Your task to perform on an android device: Clear all items from cart on walmart. Image 0: 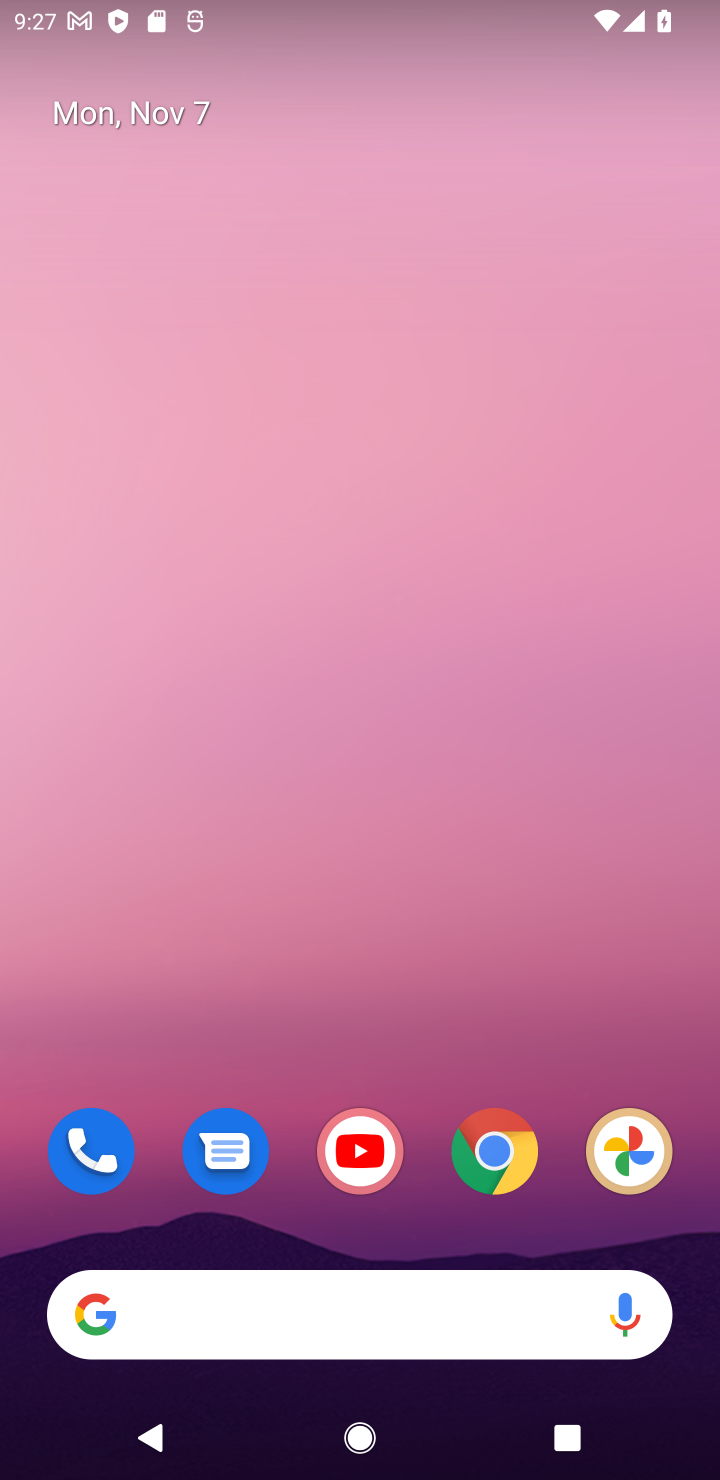
Step 0: click (502, 1152)
Your task to perform on an android device: Clear all items from cart on walmart. Image 1: 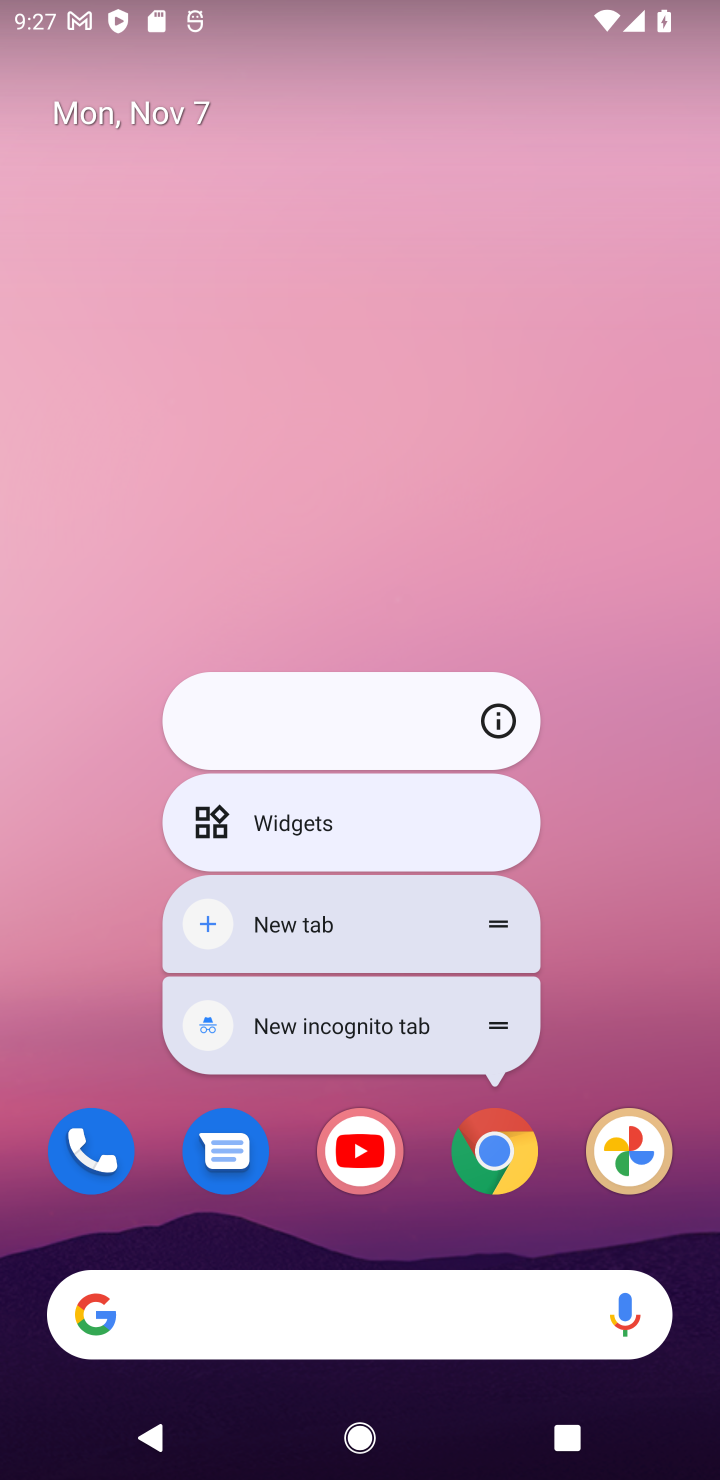
Step 1: click (502, 1154)
Your task to perform on an android device: Clear all items from cart on walmart. Image 2: 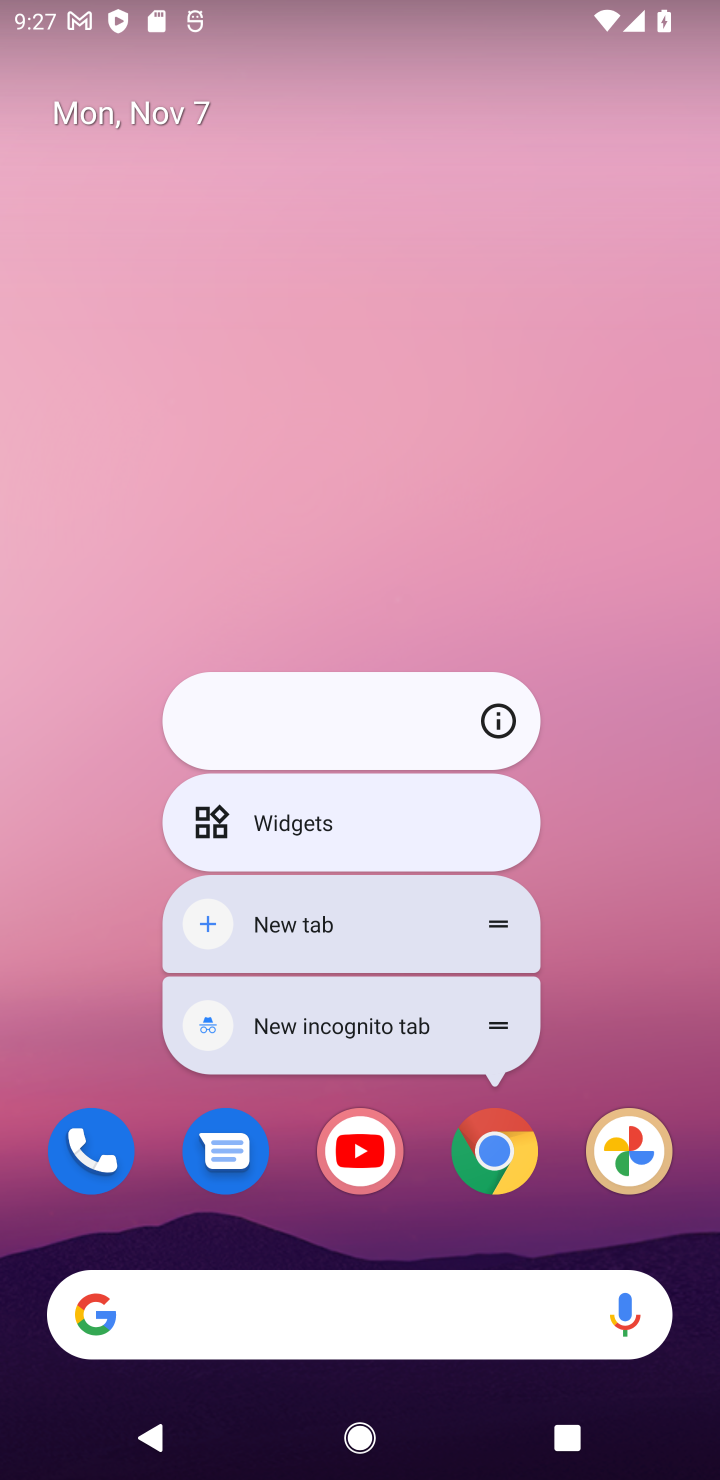
Step 2: click (502, 1154)
Your task to perform on an android device: Clear all items from cart on walmart. Image 3: 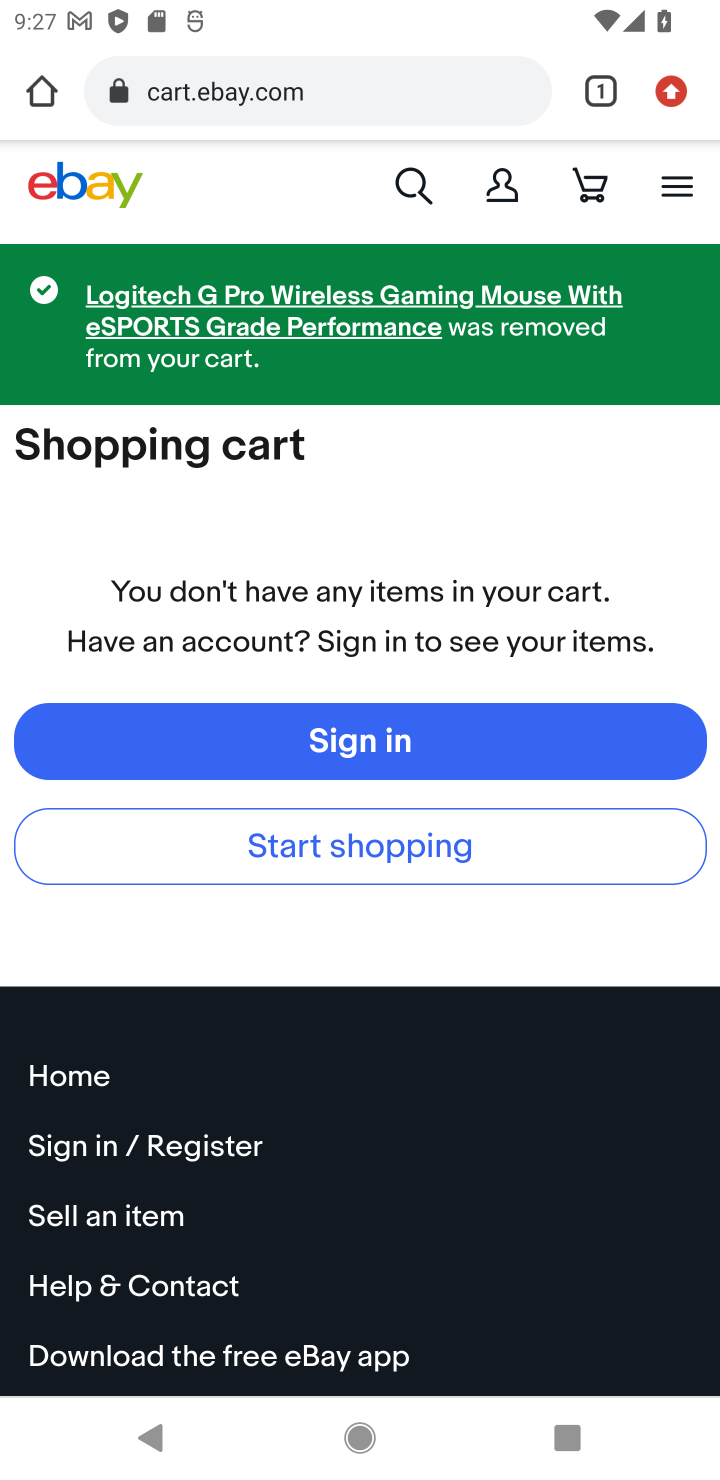
Step 3: click (368, 90)
Your task to perform on an android device: Clear all items from cart on walmart. Image 4: 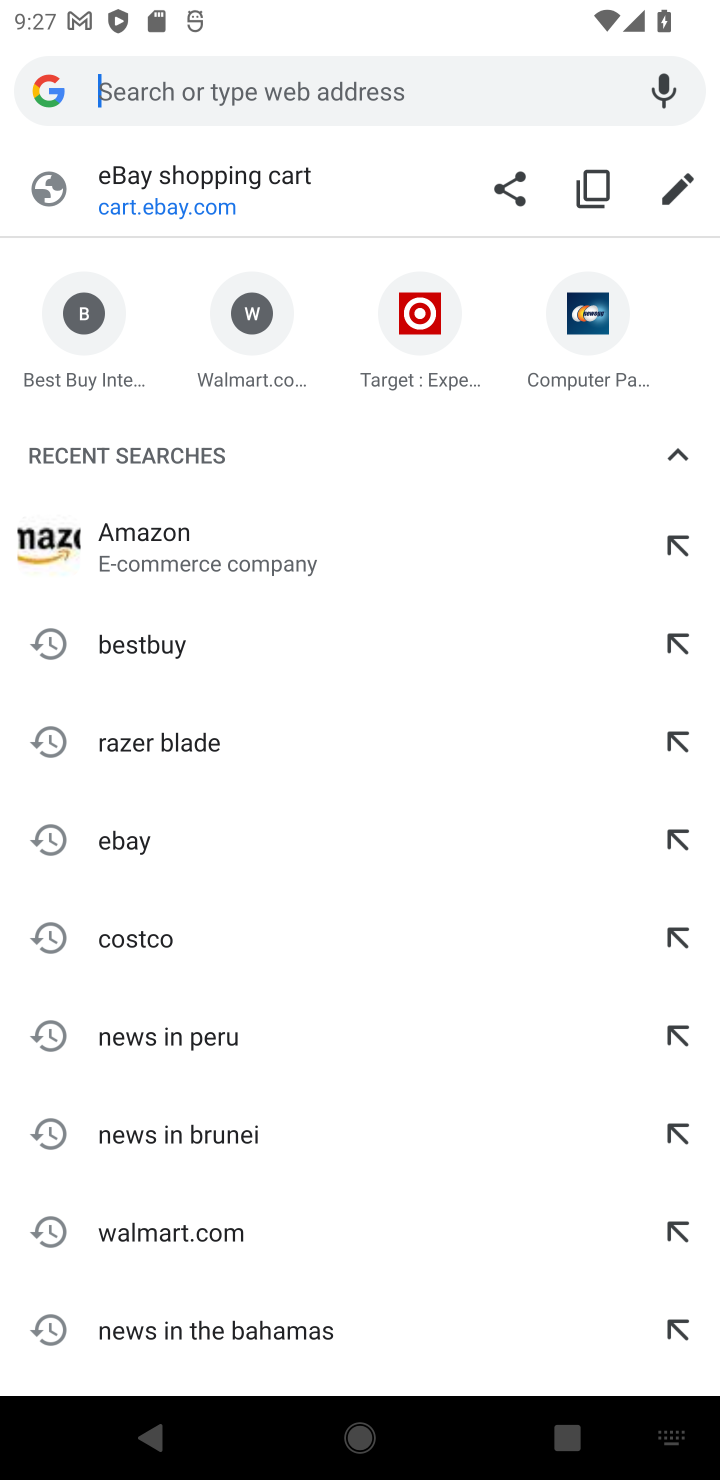
Step 4: click (237, 379)
Your task to perform on an android device: Clear all items from cart on walmart. Image 5: 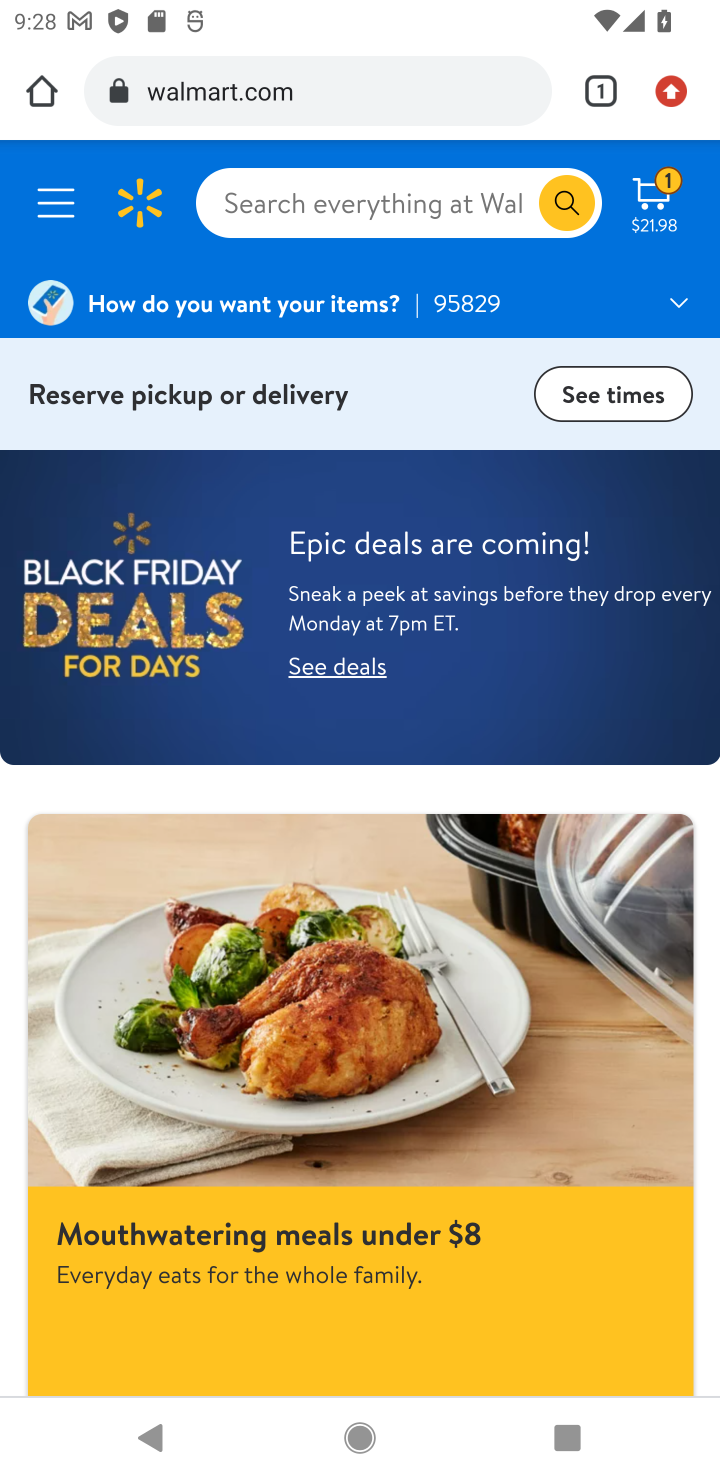
Step 5: click (653, 191)
Your task to perform on an android device: Clear all items from cart on walmart. Image 6: 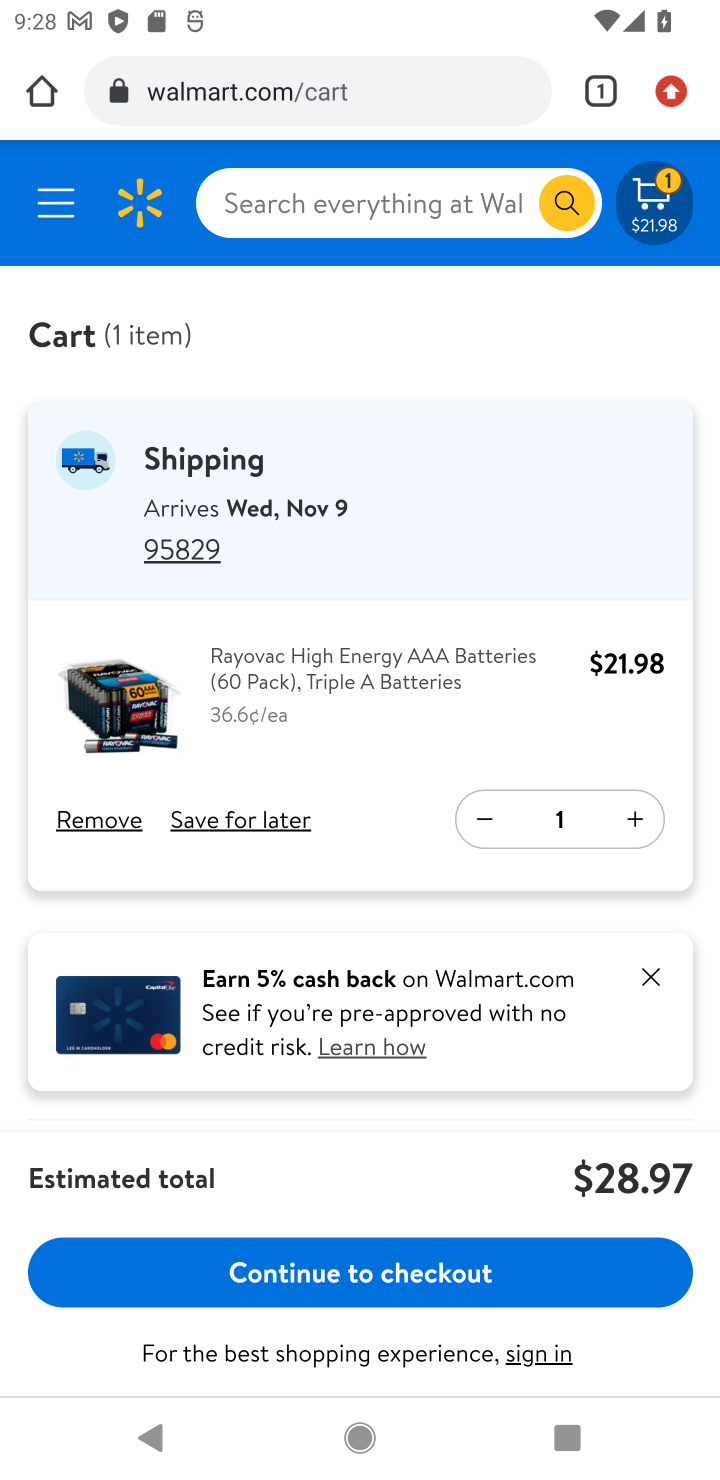
Step 6: click (94, 809)
Your task to perform on an android device: Clear all items from cart on walmart. Image 7: 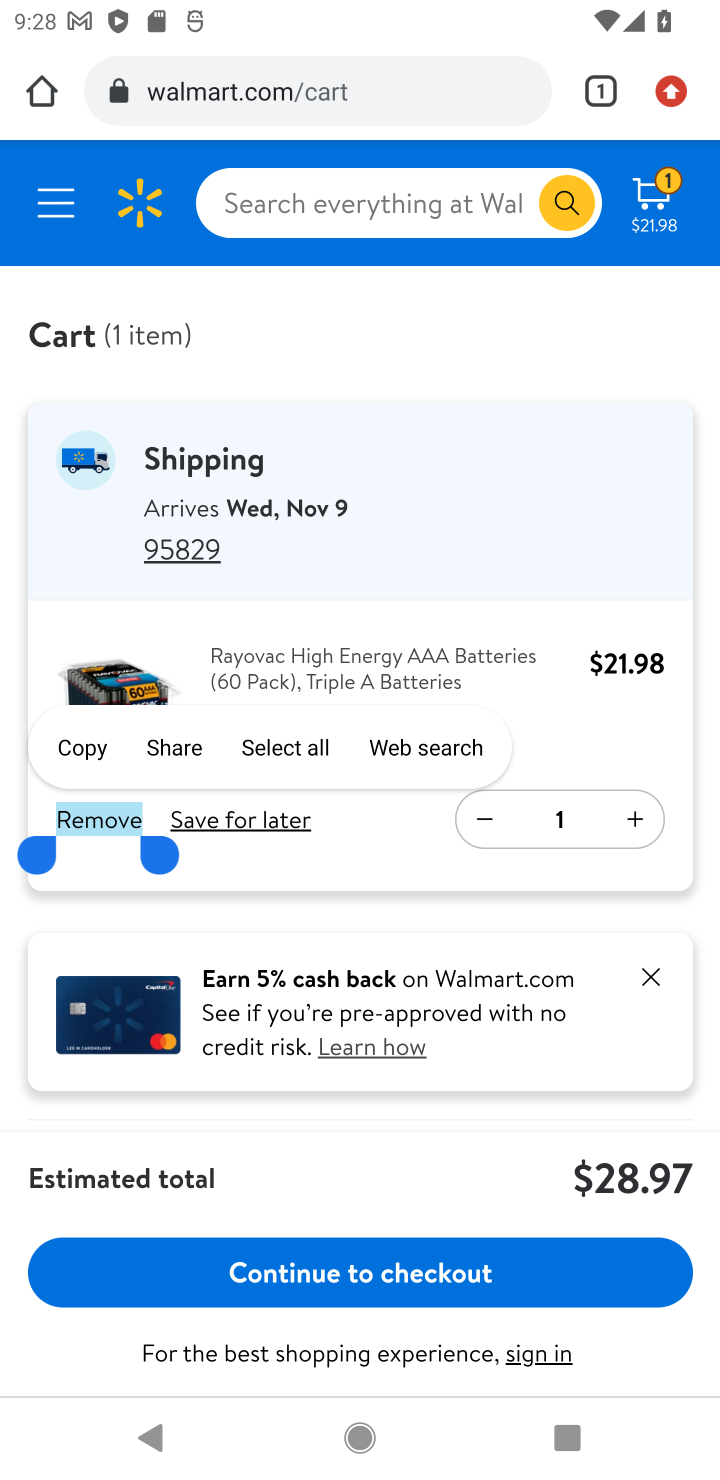
Step 7: click (94, 809)
Your task to perform on an android device: Clear all items from cart on walmart. Image 8: 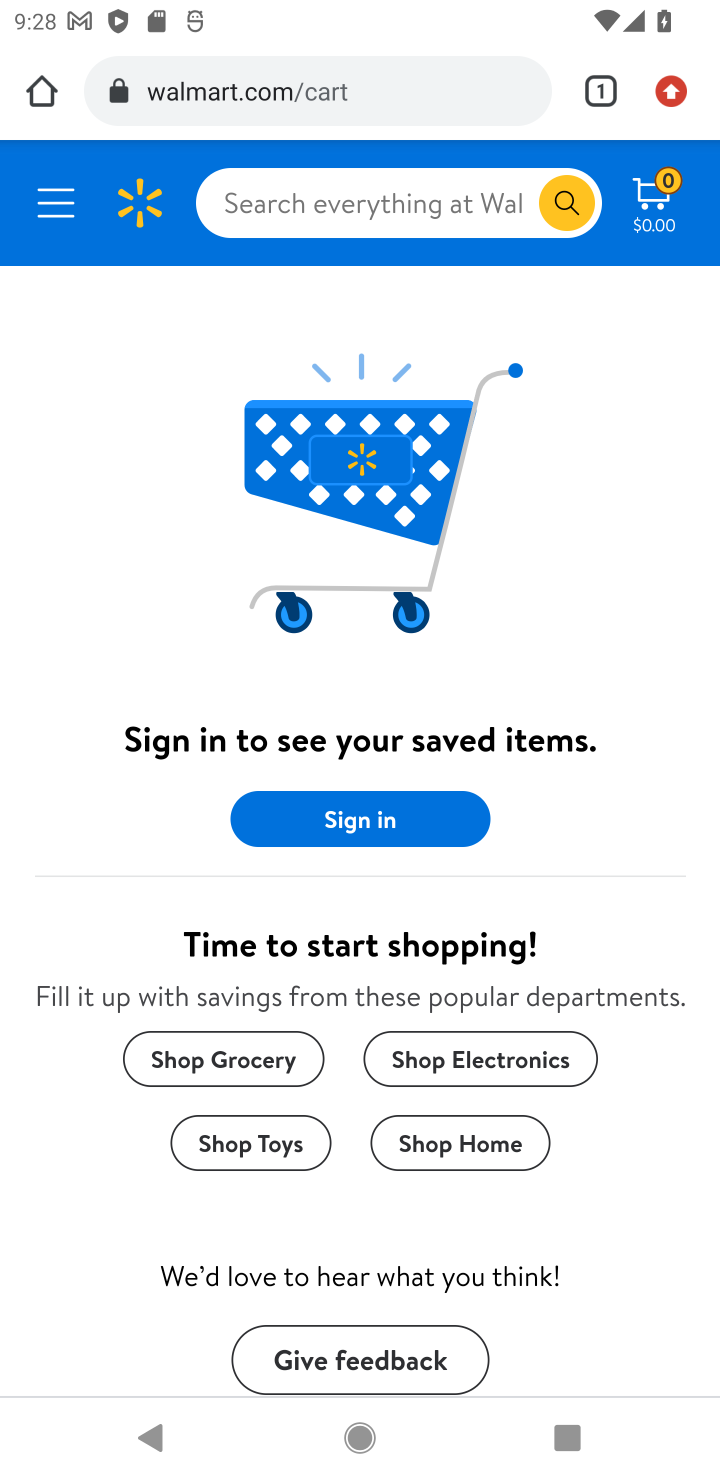
Step 8: task complete